Your task to perform on an android device: Go to Yahoo.com Image 0: 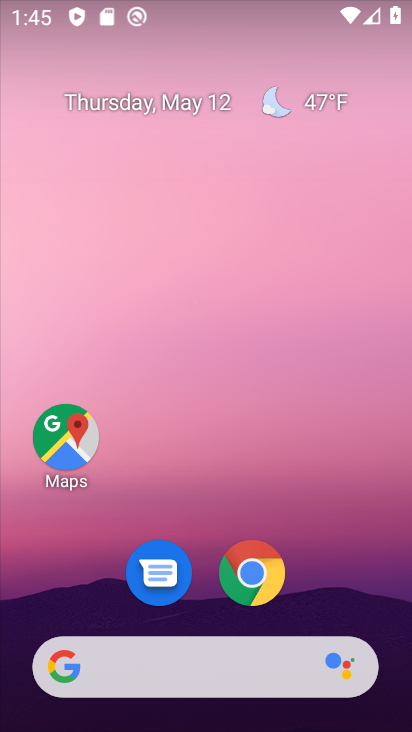
Step 0: click (246, 564)
Your task to perform on an android device: Go to Yahoo.com Image 1: 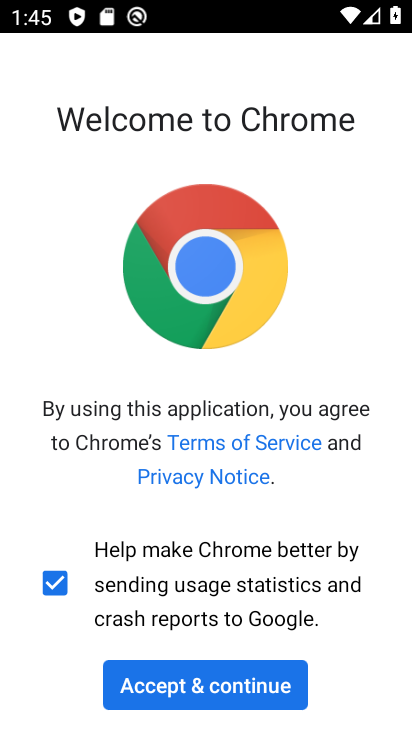
Step 1: click (207, 699)
Your task to perform on an android device: Go to Yahoo.com Image 2: 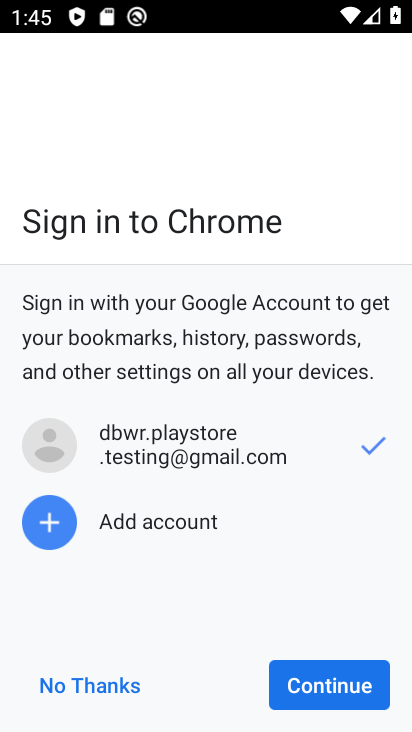
Step 2: click (326, 693)
Your task to perform on an android device: Go to Yahoo.com Image 3: 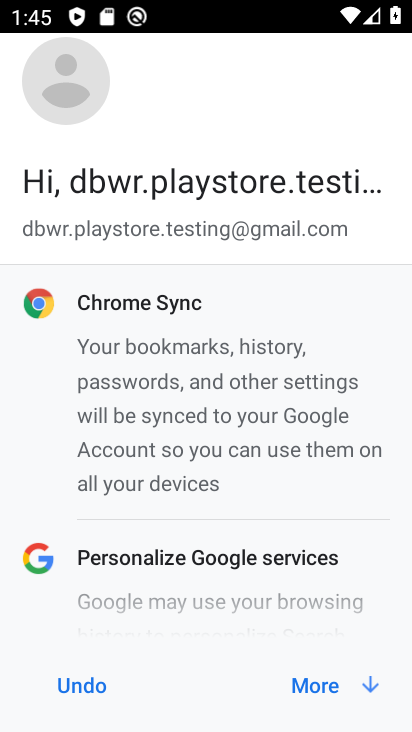
Step 3: click (326, 693)
Your task to perform on an android device: Go to Yahoo.com Image 4: 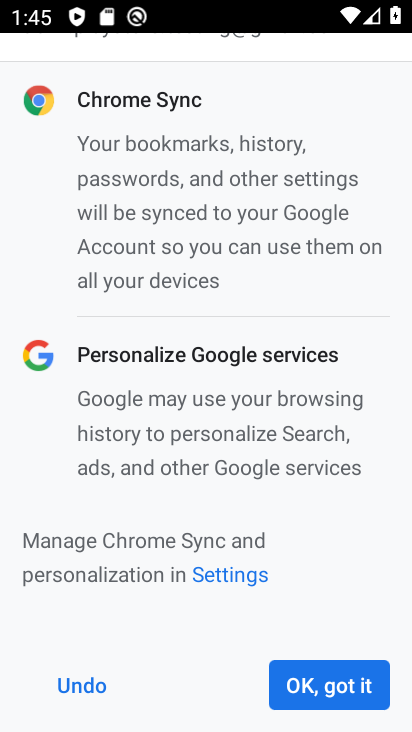
Step 4: click (326, 693)
Your task to perform on an android device: Go to Yahoo.com Image 5: 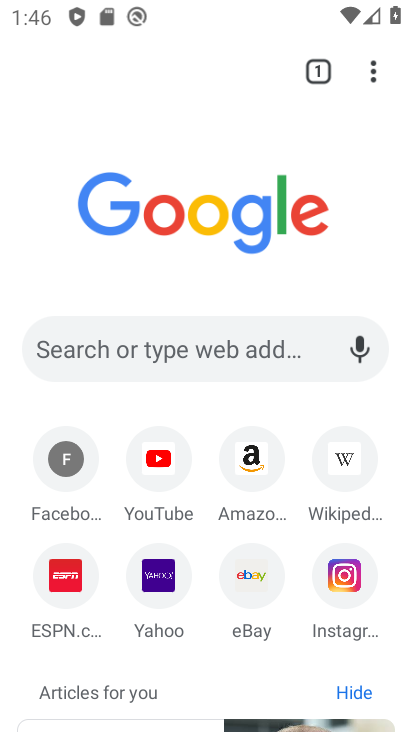
Step 5: click (163, 556)
Your task to perform on an android device: Go to Yahoo.com Image 6: 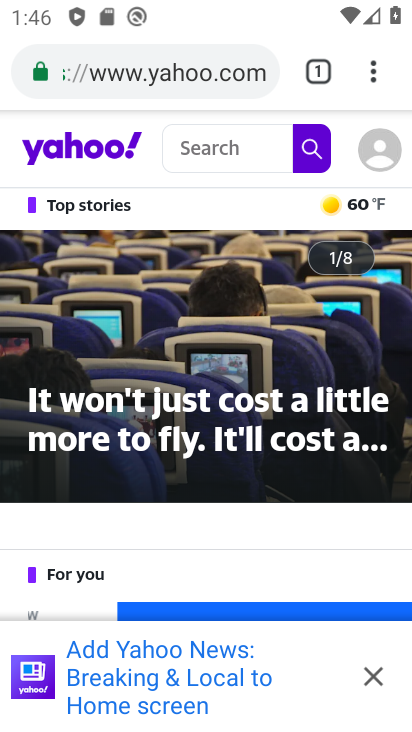
Step 6: task complete